Your task to perform on an android device: Do I have any events this weekend? Image 0: 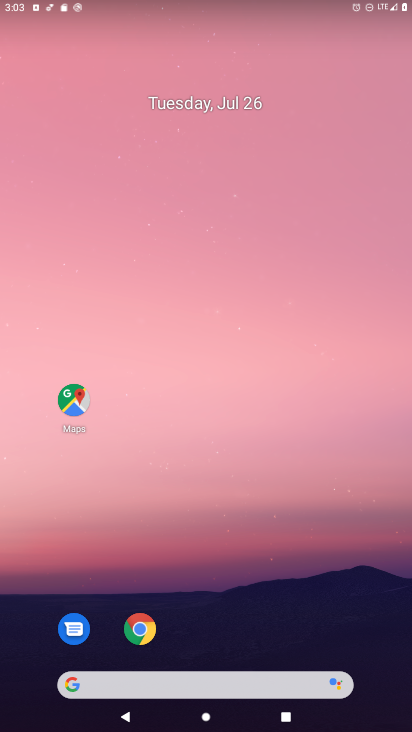
Step 0: drag from (313, 623) to (269, 268)
Your task to perform on an android device: Do I have any events this weekend? Image 1: 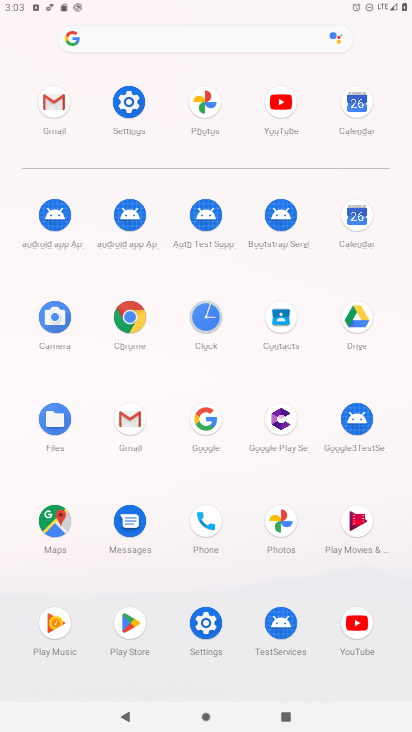
Step 1: click (354, 216)
Your task to perform on an android device: Do I have any events this weekend? Image 2: 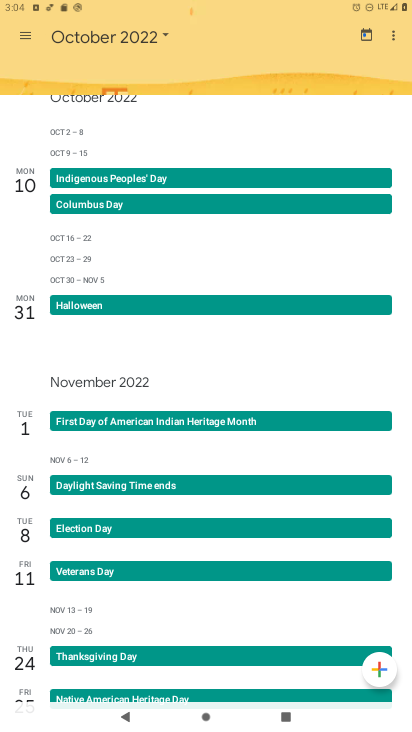
Step 2: click (25, 37)
Your task to perform on an android device: Do I have any events this weekend? Image 3: 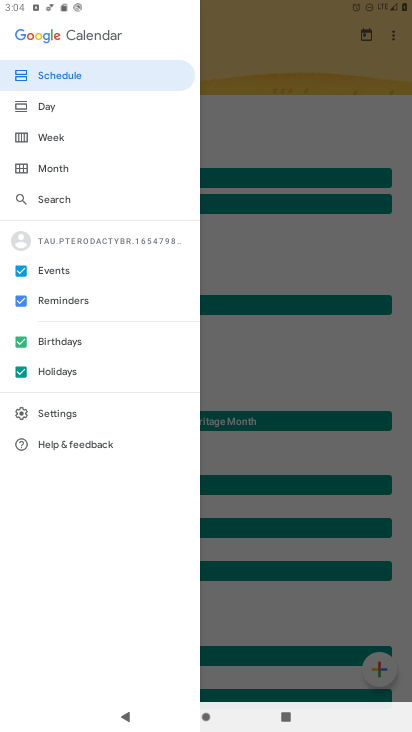
Step 3: click (48, 138)
Your task to perform on an android device: Do I have any events this weekend? Image 4: 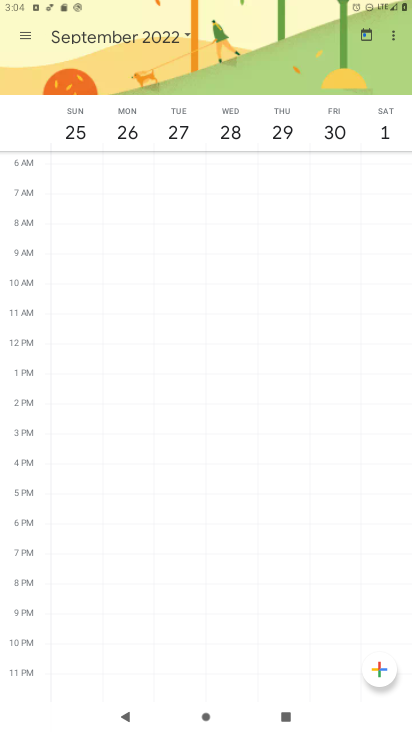
Step 4: click (178, 32)
Your task to perform on an android device: Do I have any events this weekend? Image 5: 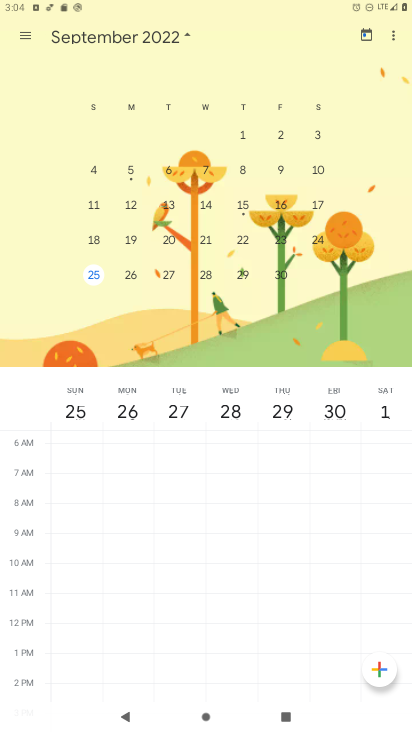
Step 5: drag from (89, 166) to (408, 201)
Your task to perform on an android device: Do I have any events this weekend? Image 6: 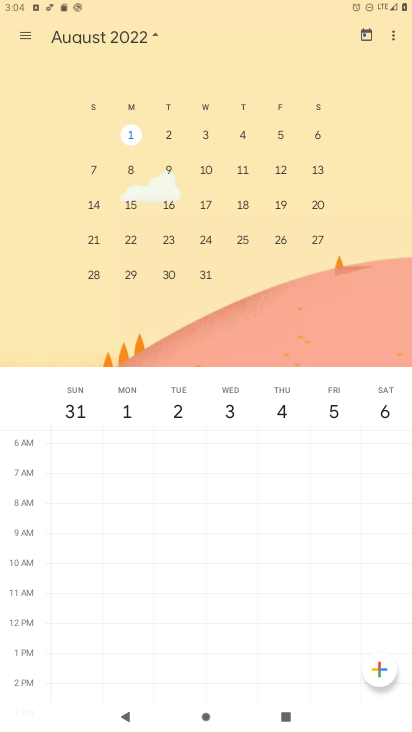
Step 6: drag from (76, 197) to (402, 200)
Your task to perform on an android device: Do I have any events this weekend? Image 7: 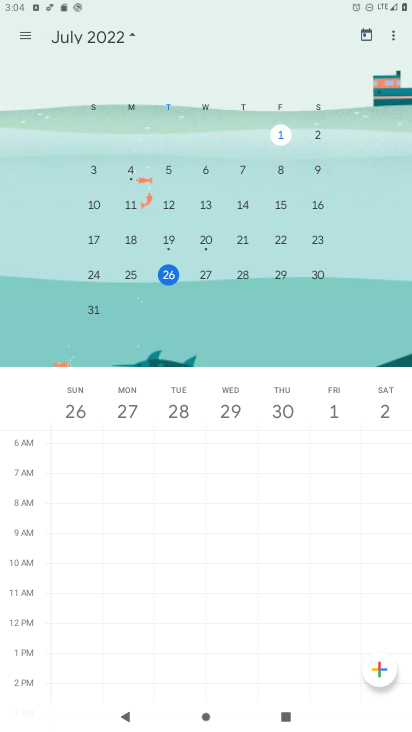
Step 7: click (163, 274)
Your task to perform on an android device: Do I have any events this weekend? Image 8: 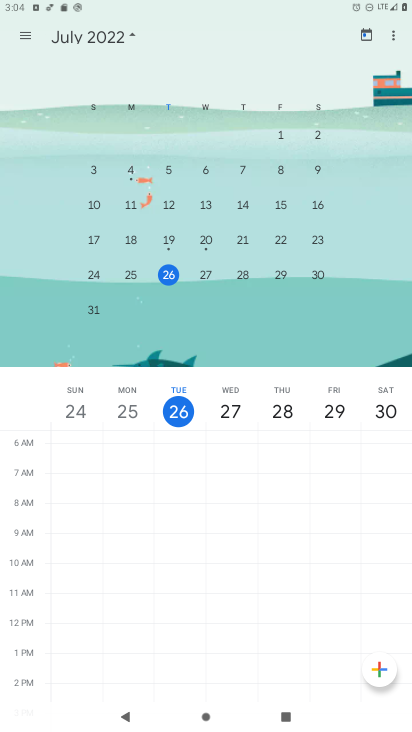
Step 8: task complete